Your task to perform on an android device: star an email in the gmail app Image 0: 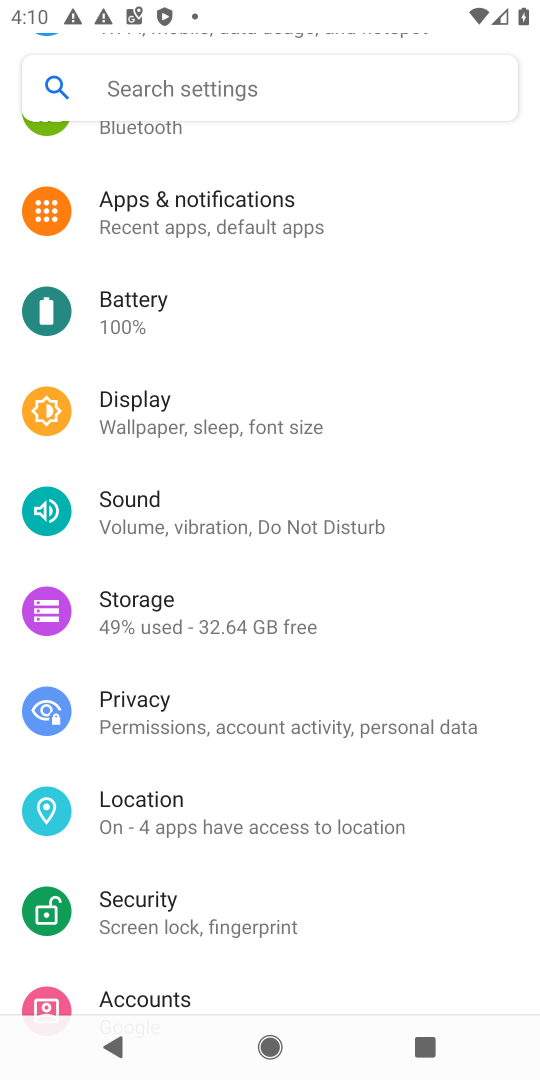
Step 0: press home button
Your task to perform on an android device: star an email in the gmail app Image 1: 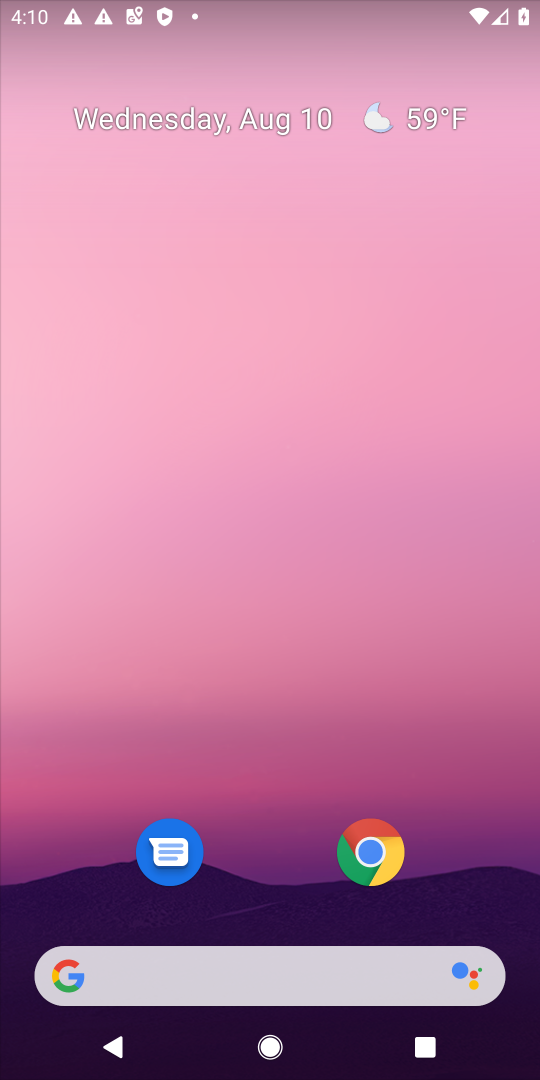
Step 1: drag from (299, 873) to (235, 229)
Your task to perform on an android device: star an email in the gmail app Image 2: 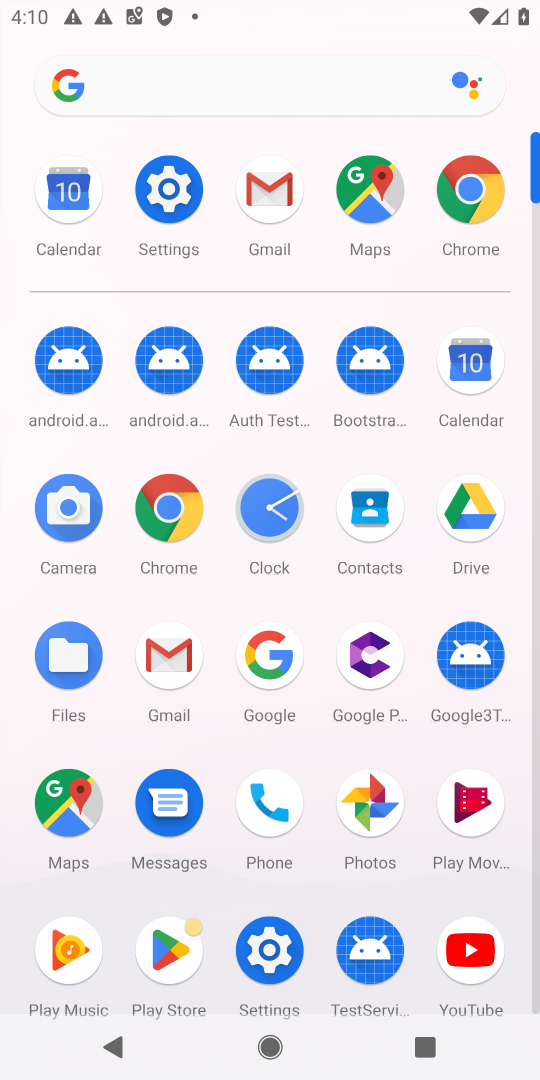
Step 2: click (167, 661)
Your task to perform on an android device: star an email in the gmail app Image 3: 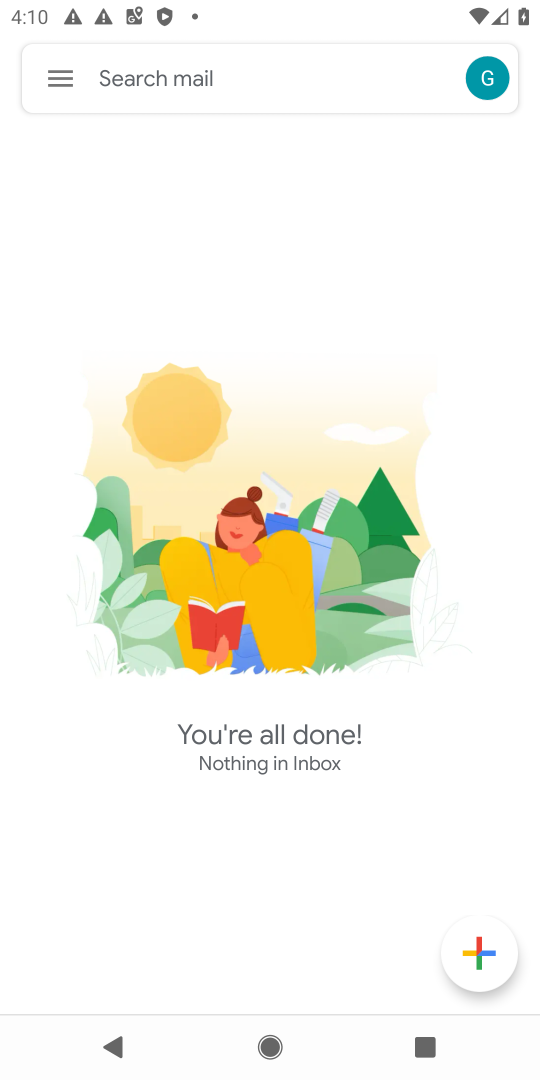
Step 3: click (76, 97)
Your task to perform on an android device: star an email in the gmail app Image 4: 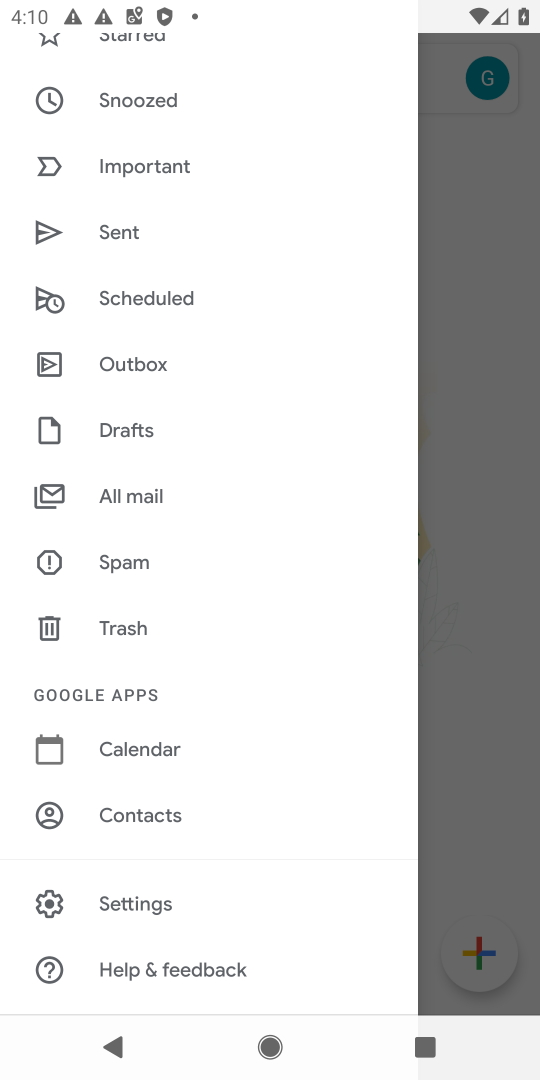
Step 4: click (148, 489)
Your task to perform on an android device: star an email in the gmail app Image 5: 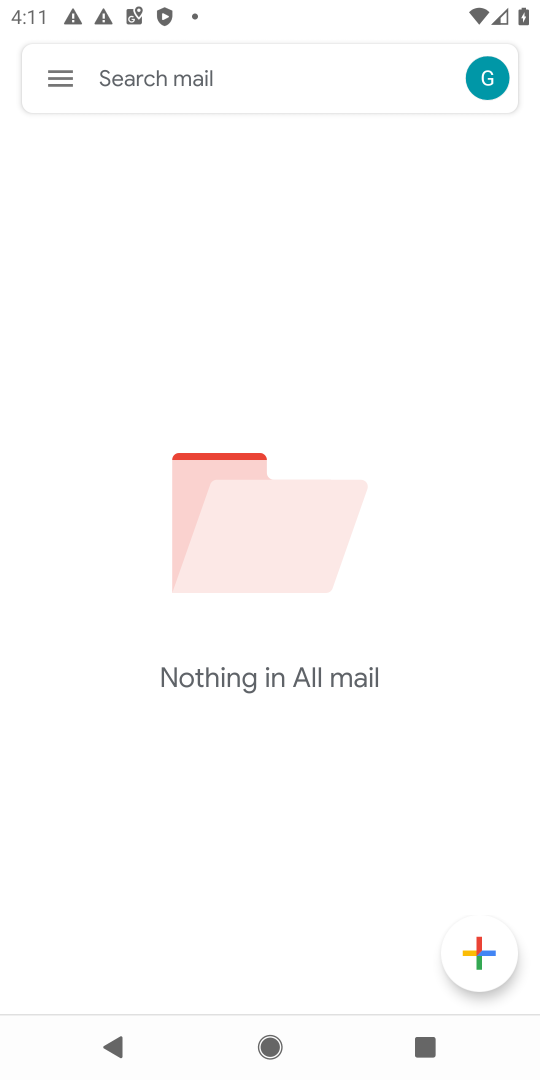
Step 5: task complete